Your task to perform on an android device: Go to calendar. Show me events next week Image 0: 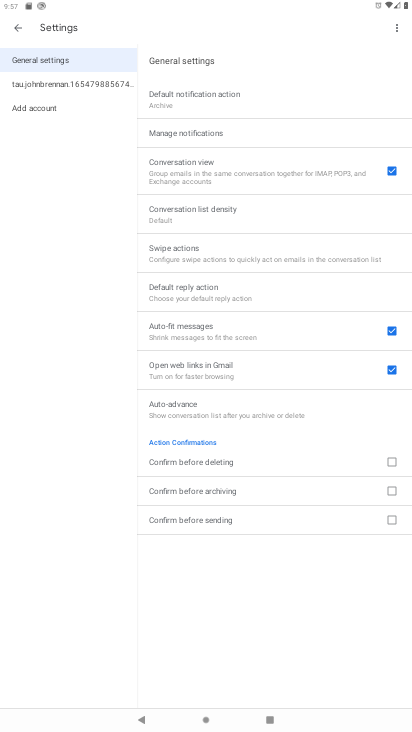
Step 0: press home button
Your task to perform on an android device: Go to calendar. Show me events next week Image 1: 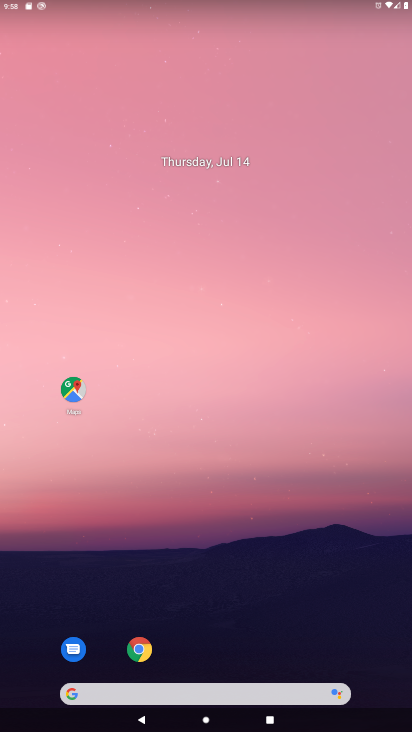
Step 1: drag from (225, 682) to (178, 84)
Your task to perform on an android device: Go to calendar. Show me events next week Image 2: 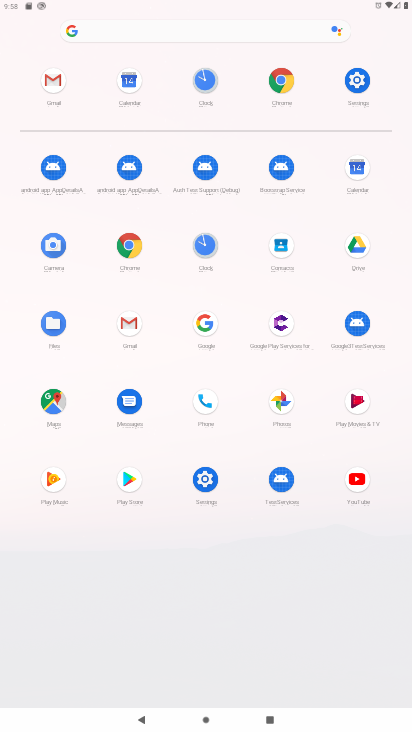
Step 2: click (357, 171)
Your task to perform on an android device: Go to calendar. Show me events next week Image 3: 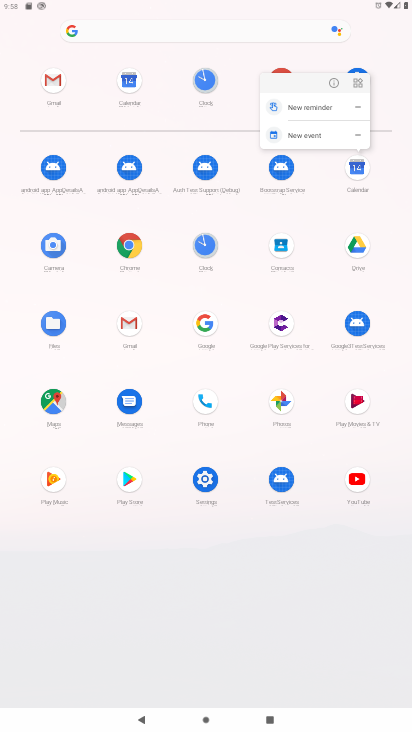
Step 3: click (357, 171)
Your task to perform on an android device: Go to calendar. Show me events next week Image 4: 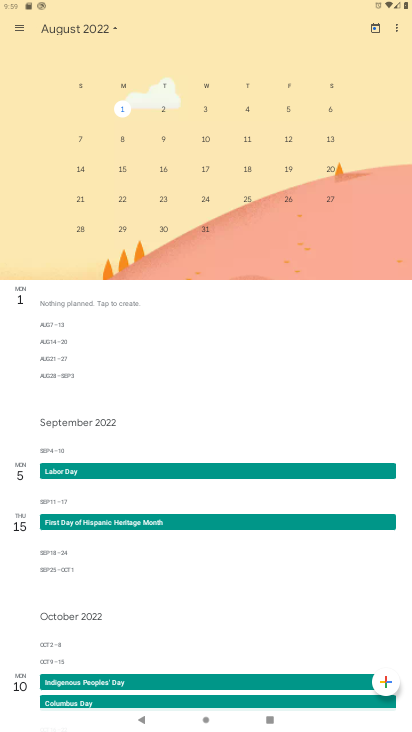
Step 4: drag from (55, 162) to (361, 213)
Your task to perform on an android device: Go to calendar. Show me events next week Image 5: 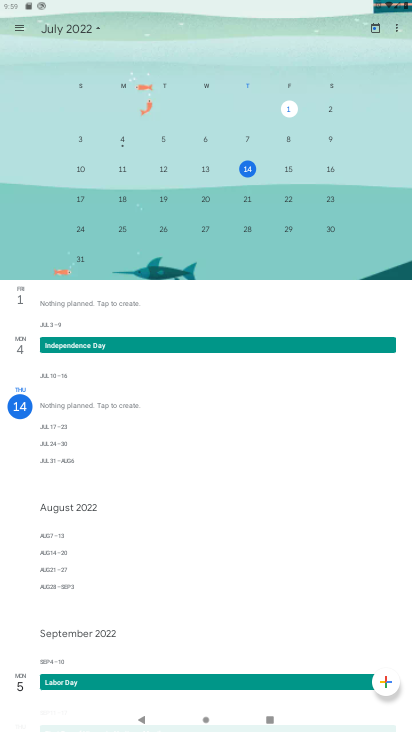
Step 5: click (83, 202)
Your task to perform on an android device: Go to calendar. Show me events next week Image 6: 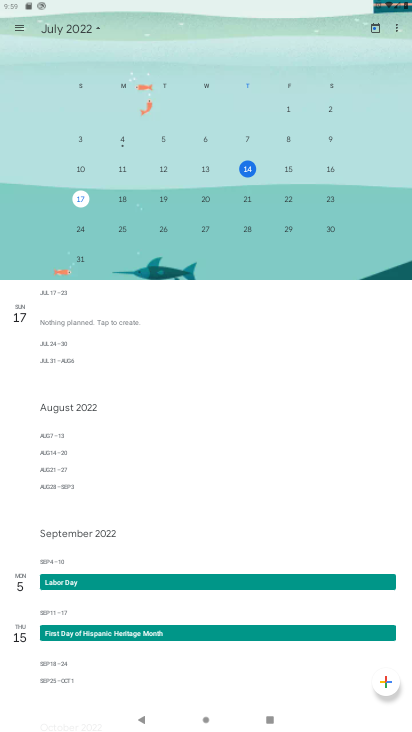
Step 6: task complete